Your task to perform on an android device: toggle translation in the chrome app Image 0: 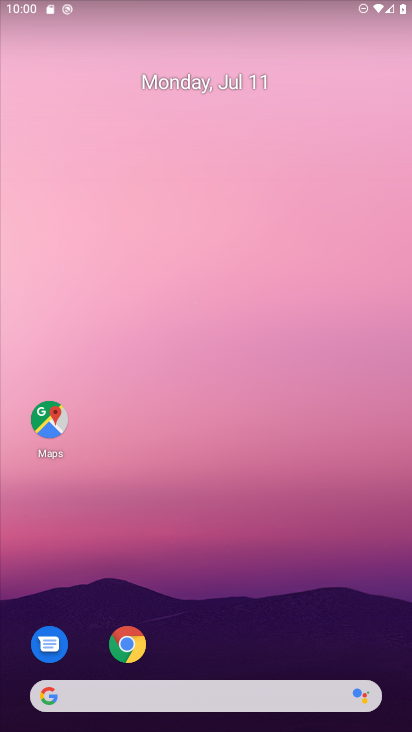
Step 0: click (127, 646)
Your task to perform on an android device: toggle translation in the chrome app Image 1: 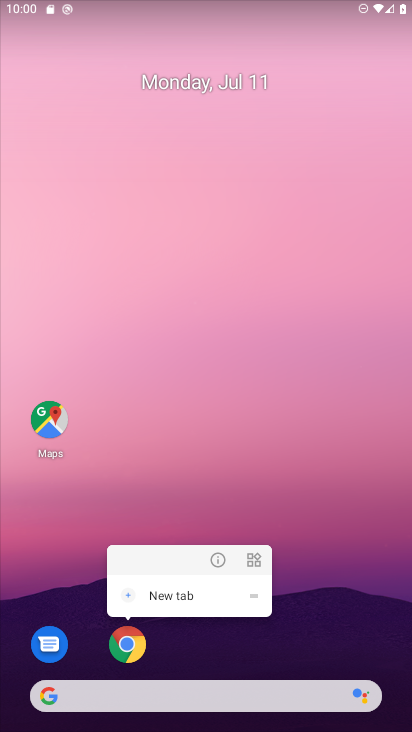
Step 1: click (123, 657)
Your task to perform on an android device: toggle translation in the chrome app Image 2: 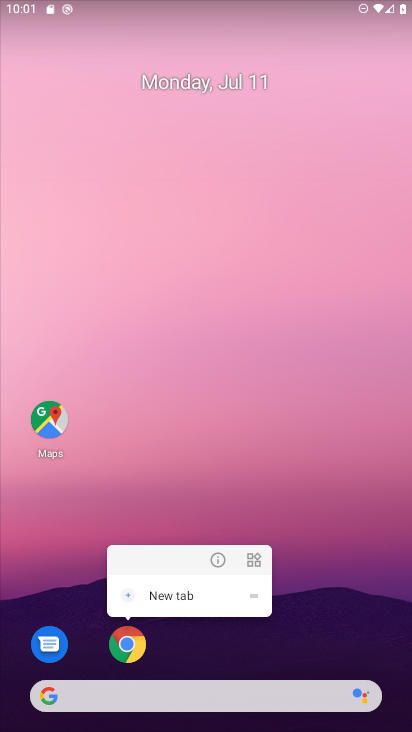
Step 2: click (130, 653)
Your task to perform on an android device: toggle translation in the chrome app Image 3: 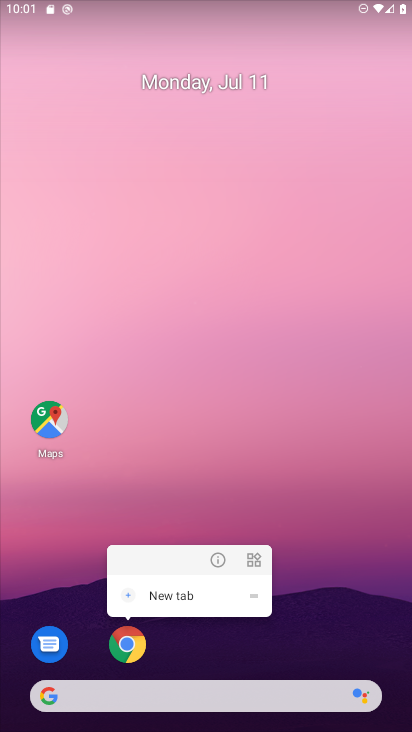
Step 3: click (126, 641)
Your task to perform on an android device: toggle translation in the chrome app Image 4: 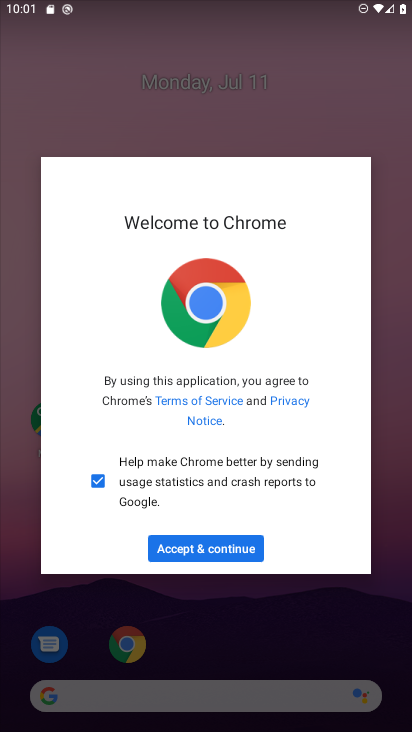
Step 4: click (226, 548)
Your task to perform on an android device: toggle translation in the chrome app Image 5: 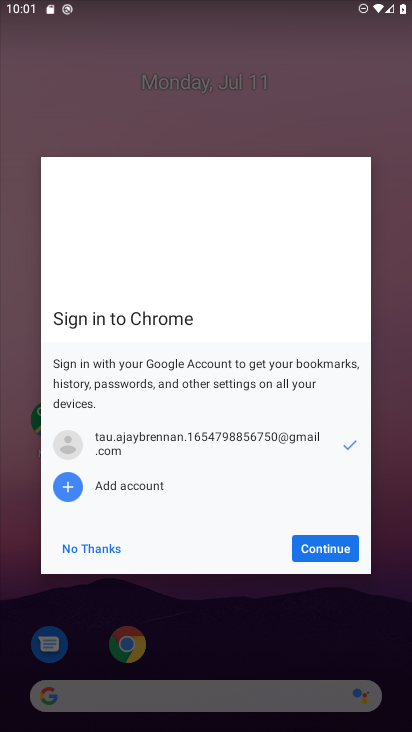
Step 5: click (348, 539)
Your task to perform on an android device: toggle translation in the chrome app Image 6: 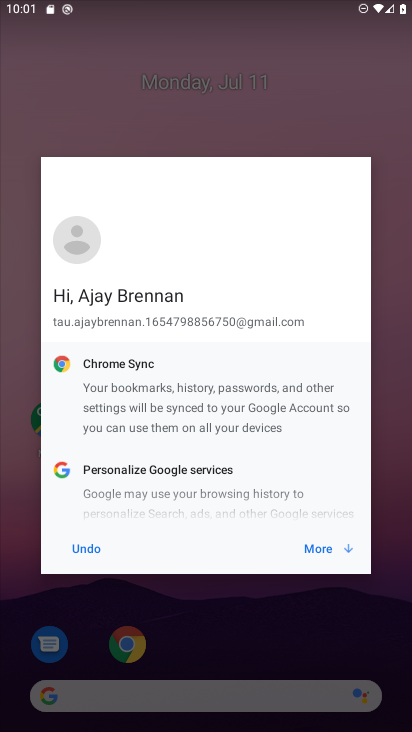
Step 6: click (320, 548)
Your task to perform on an android device: toggle translation in the chrome app Image 7: 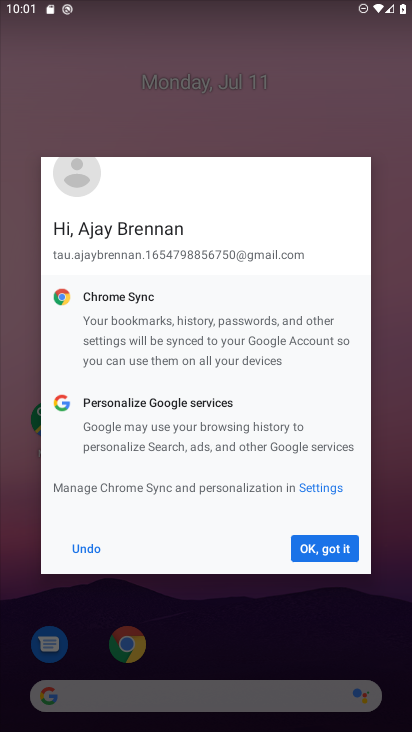
Step 7: click (320, 548)
Your task to perform on an android device: toggle translation in the chrome app Image 8: 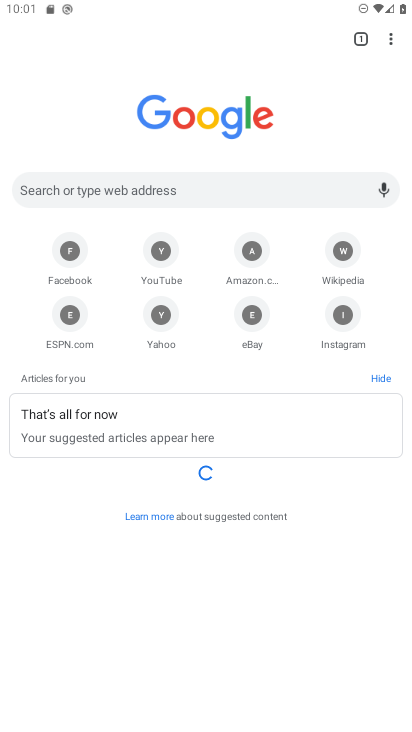
Step 8: click (389, 41)
Your task to perform on an android device: toggle translation in the chrome app Image 9: 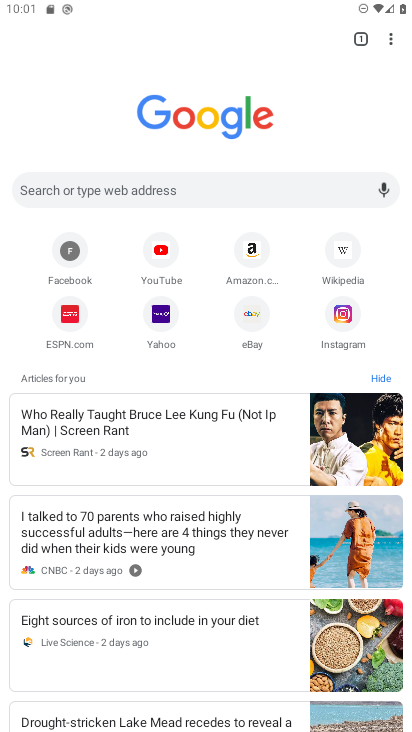
Step 9: click (389, 41)
Your task to perform on an android device: toggle translation in the chrome app Image 10: 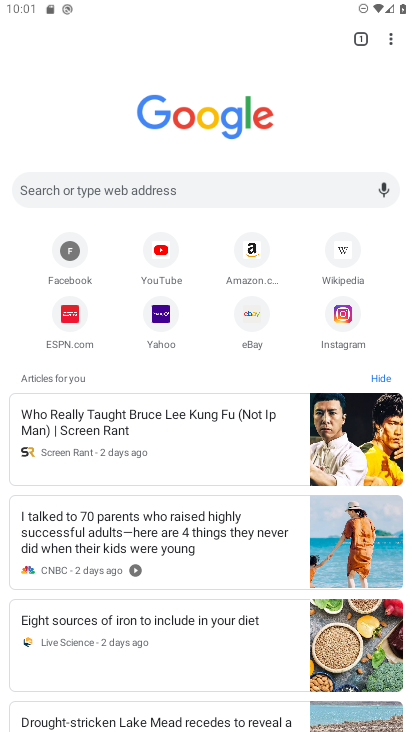
Step 10: click (387, 35)
Your task to perform on an android device: toggle translation in the chrome app Image 11: 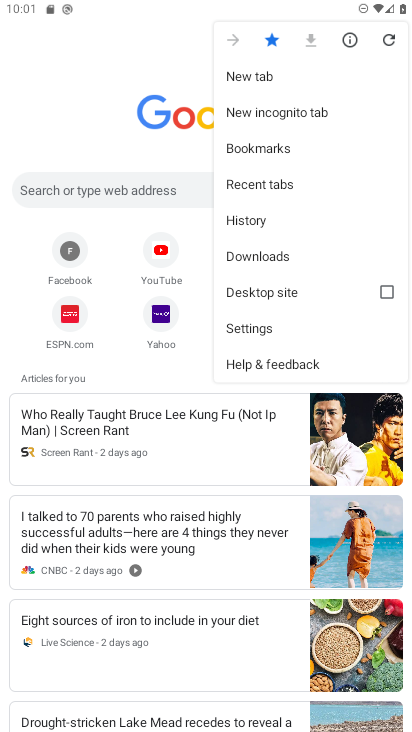
Step 11: click (263, 329)
Your task to perform on an android device: toggle translation in the chrome app Image 12: 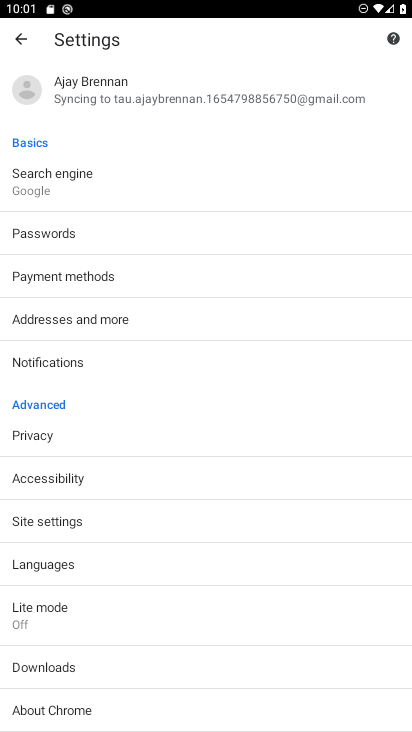
Step 12: drag from (80, 695) to (84, 347)
Your task to perform on an android device: toggle translation in the chrome app Image 13: 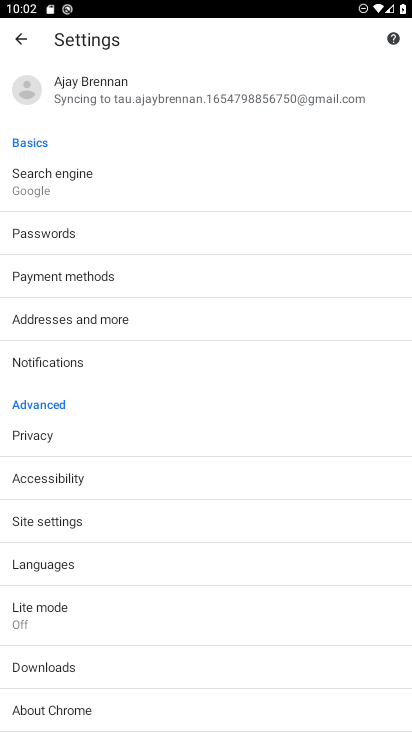
Step 13: click (63, 563)
Your task to perform on an android device: toggle translation in the chrome app Image 14: 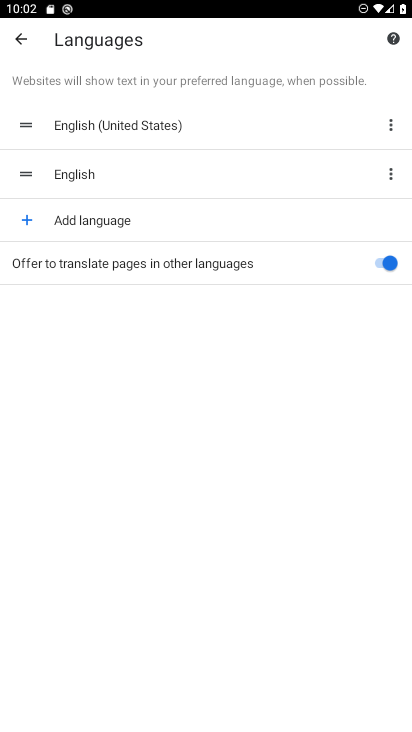
Step 14: click (380, 262)
Your task to perform on an android device: toggle translation in the chrome app Image 15: 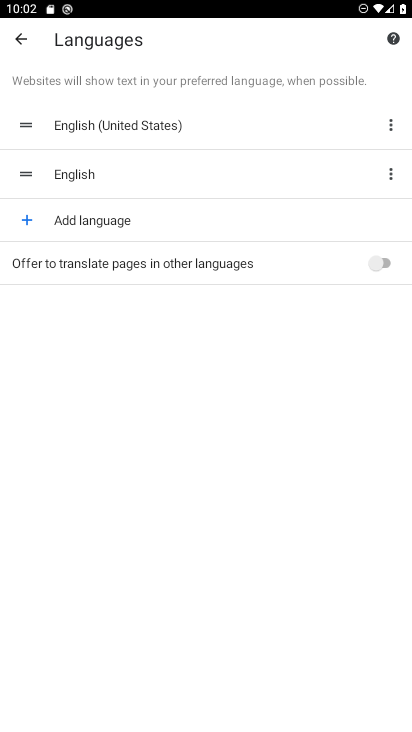
Step 15: task complete